Your task to perform on an android device: turn pop-ups on in chrome Image 0: 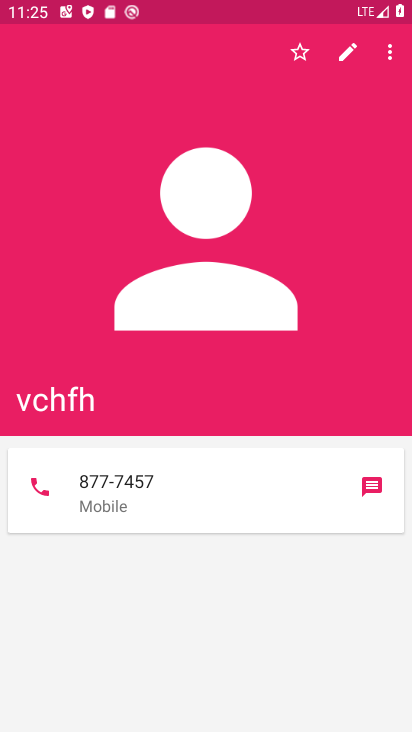
Step 0: press home button
Your task to perform on an android device: turn pop-ups on in chrome Image 1: 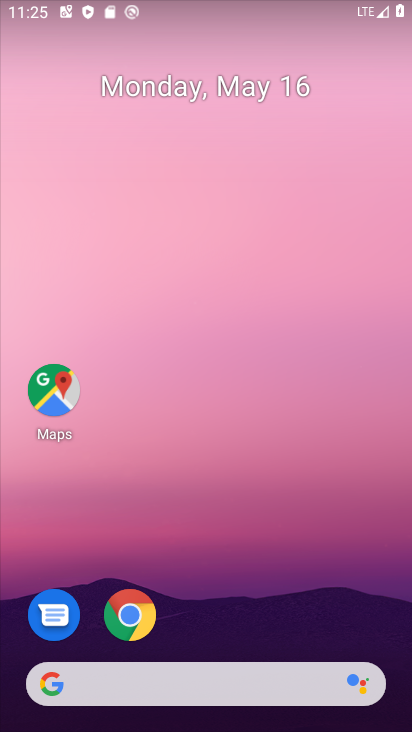
Step 1: drag from (230, 650) to (242, 280)
Your task to perform on an android device: turn pop-ups on in chrome Image 2: 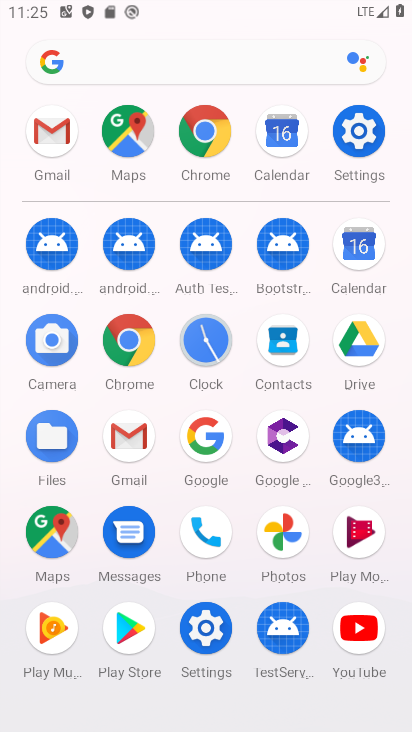
Step 2: click (142, 366)
Your task to perform on an android device: turn pop-ups on in chrome Image 3: 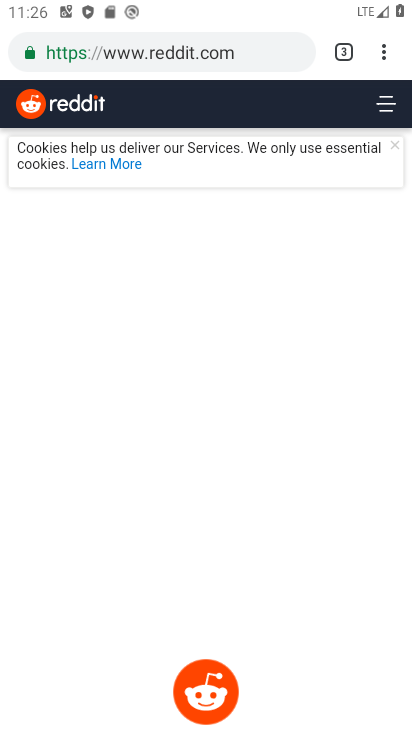
Step 3: click (387, 70)
Your task to perform on an android device: turn pop-ups on in chrome Image 4: 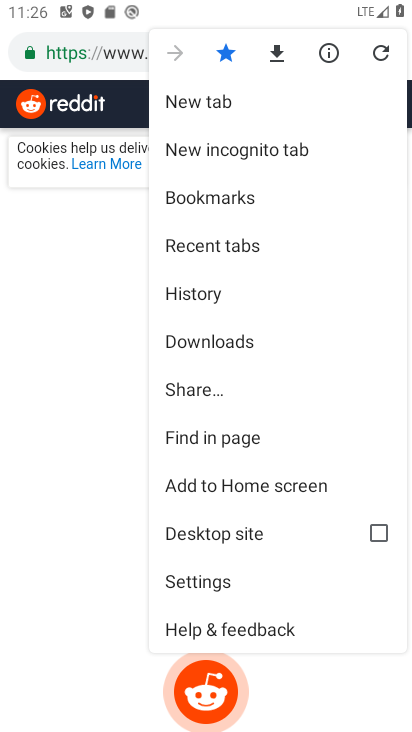
Step 4: drag from (240, 480) to (250, 340)
Your task to perform on an android device: turn pop-ups on in chrome Image 5: 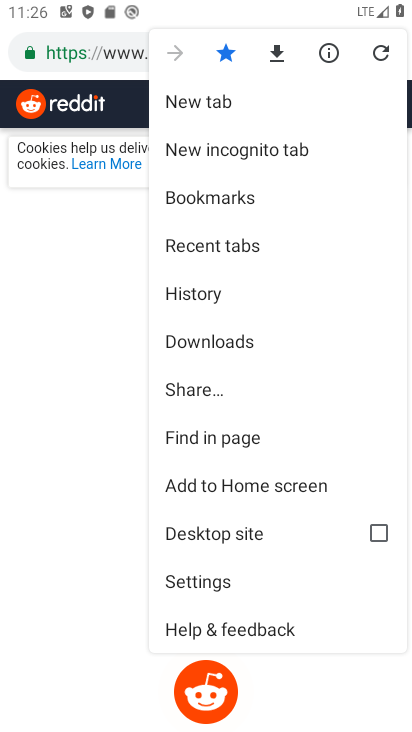
Step 5: click (209, 577)
Your task to perform on an android device: turn pop-ups on in chrome Image 6: 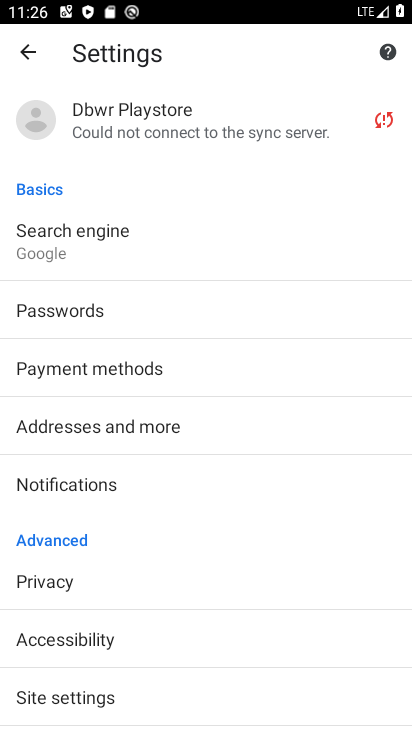
Step 6: click (133, 689)
Your task to perform on an android device: turn pop-ups on in chrome Image 7: 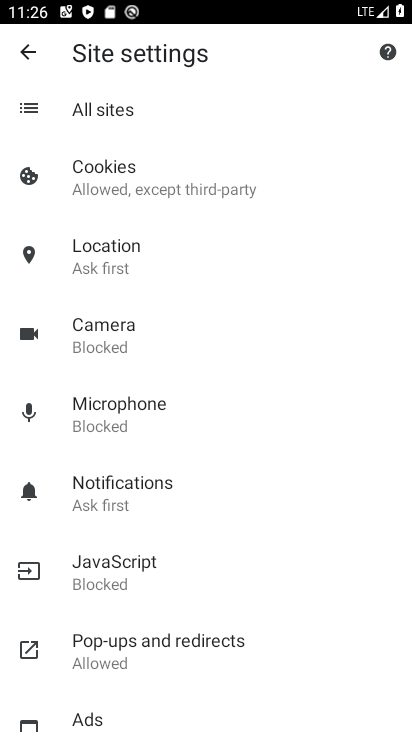
Step 7: drag from (189, 575) to (237, 325)
Your task to perform on an android device: turn pop-ups on in chrome Image 8: 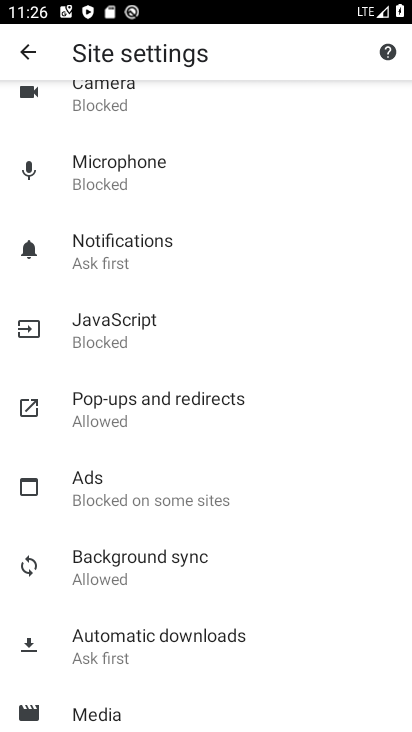
Step 8: drag from (166, 577) to (216, 346)
Your task to perform on an android device: turn pop-ups on in chrome Image 9: 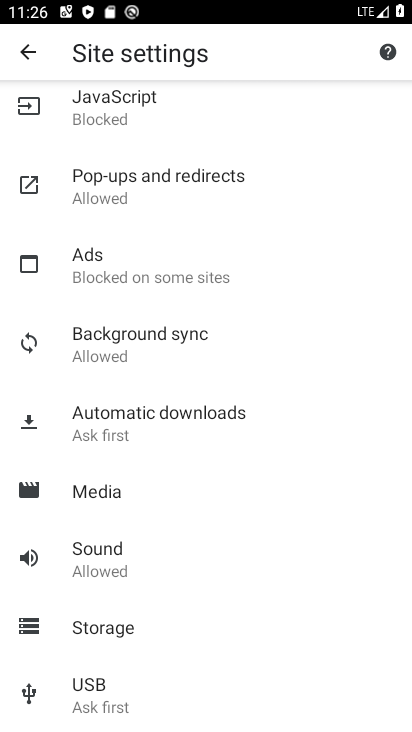
Step 9: click (184, 203)
Your task to perform on an android device: turn pop-ups on in chrome Image 10: 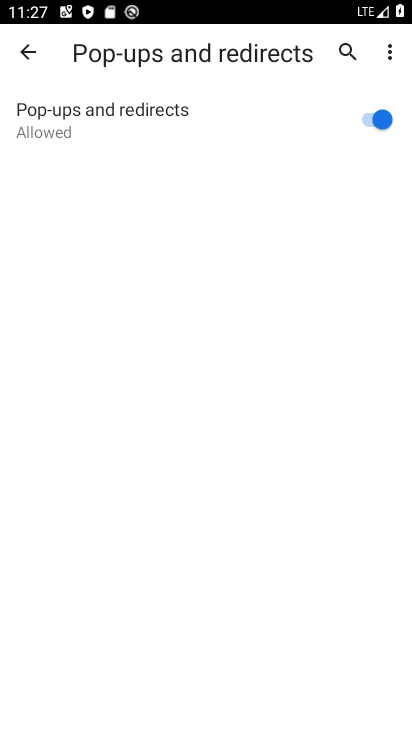
Step 10: task complete